Your task to perform on an android device: Open settings Image 0: 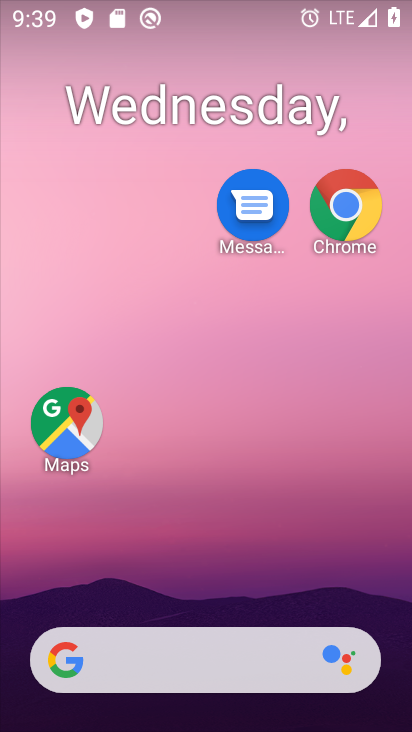
Step 0: drag from (201, 490) to (232, 2)
Your task to perform on an android device: Open settings Image 1: 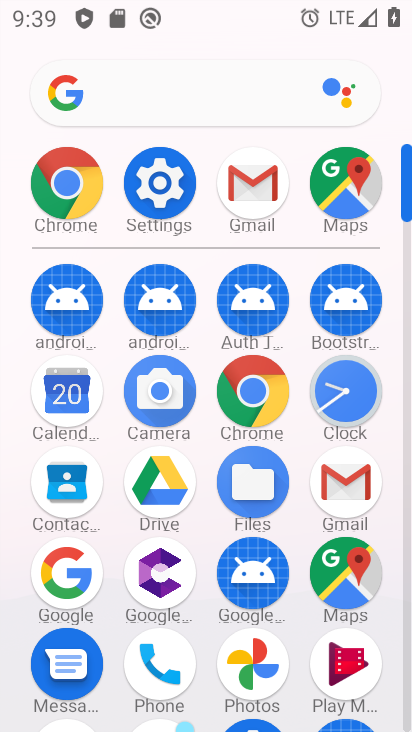
Step 1: click (160, 182)
Your task to perform on an android device: Open settings Image 2: 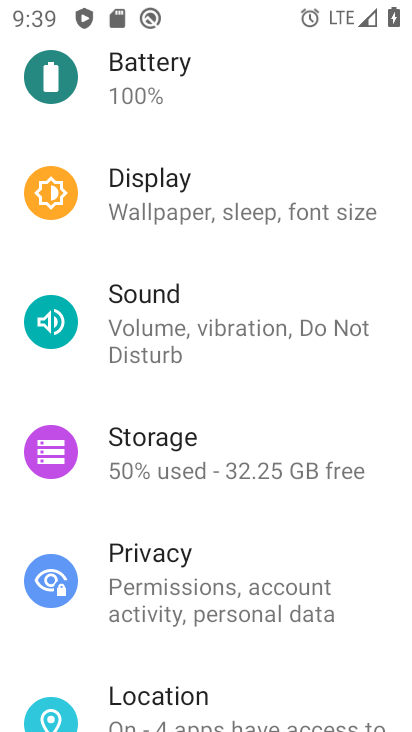
Step 2: task complete